Your task to perform on an android device: Search for vegetarian restaurants on Maps Image 0: 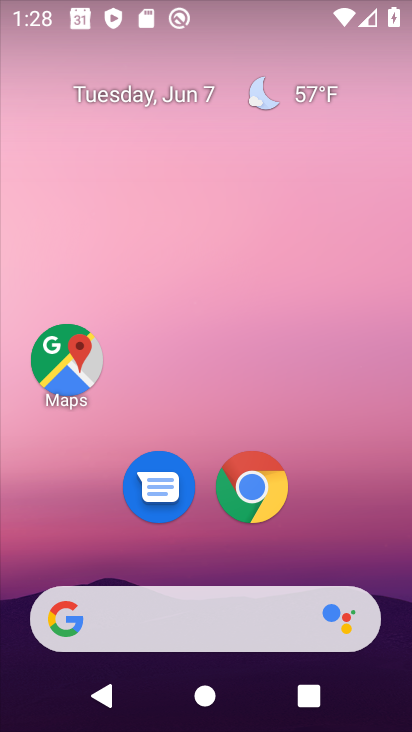
Step 0: click (67, 361)
Your task to perform on an android device: Search for vegetarian restaurants on Maps Image 1: 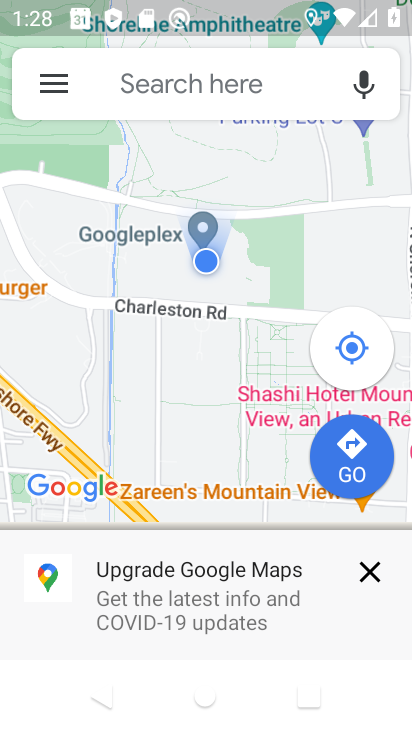
Step 1: click (371, 568)
Your task to perform on an android device: Search for vegetarian restaurants on Maps Image 2: 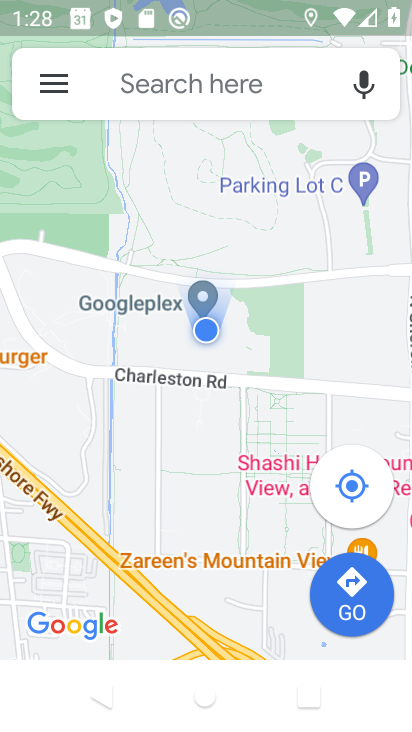
Step 2: click (202, 82)
Your task to perform on an android device: Search for vegetarian restaurants on Maps Image 3: 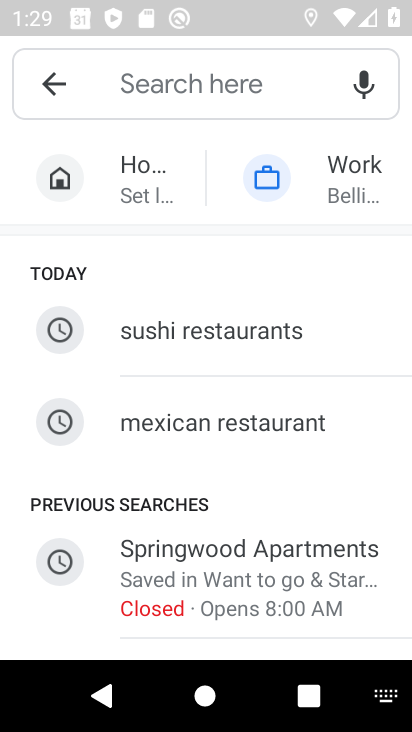
Step 3: type "vegetarian restaurants"
Your task to perform on an android device: Search for vegetarian restaurants on Maps Image 4: 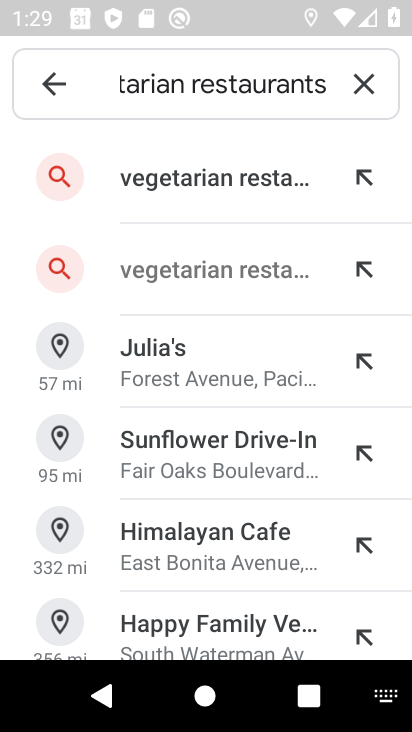
Step 4: click (271, 183)
Your task to perform on an android device: Search for vegetarian restaurants on Maps Image 5: 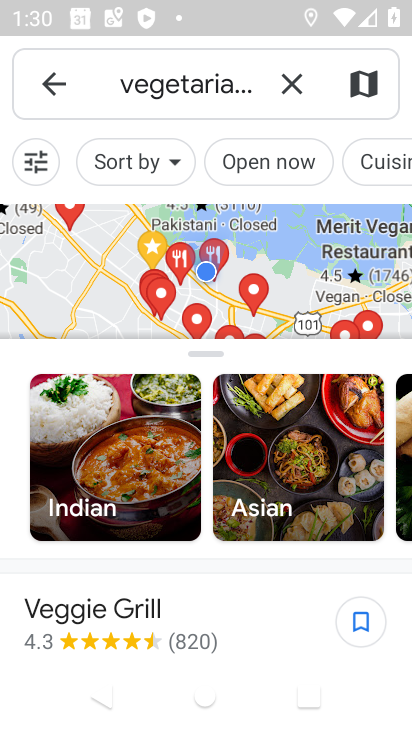
Step 5: task complete